Your task to perform on an android device: change the clock display to show seconds Image 0: 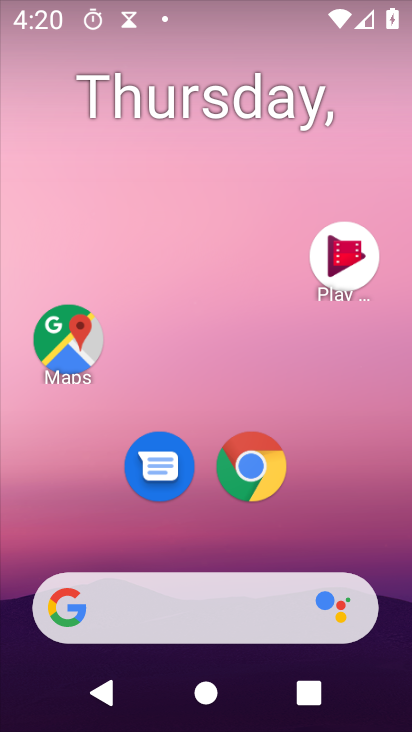
Step 0: drag from (262, 604) to (300, 120)
Your task to perform on an android device: change the clock display to show seconds Image 1: 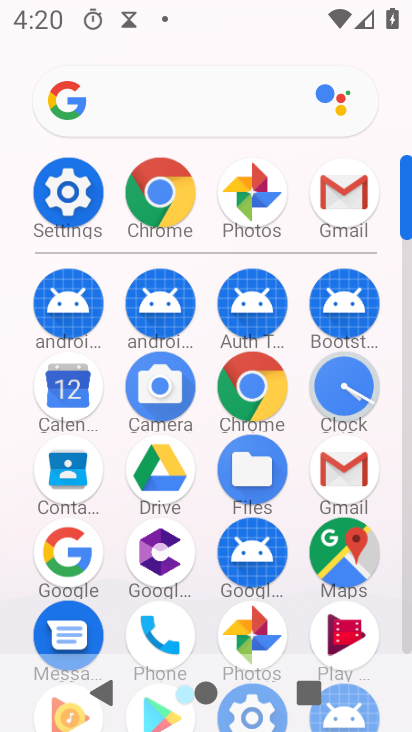
Step 1: click (62, 206)
Your task to perform on an android device: change the clock display to show seconds Image 2: 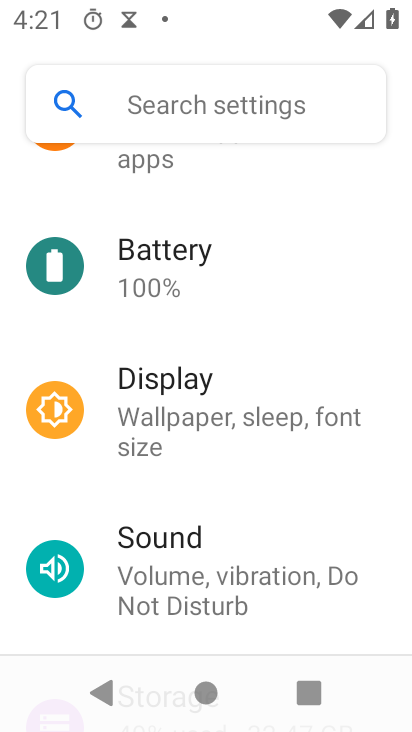
Step 2: drag from (232, 614) to (246, 104)
Your task to perform on an android device: change the clock display to show seconds Image 3: 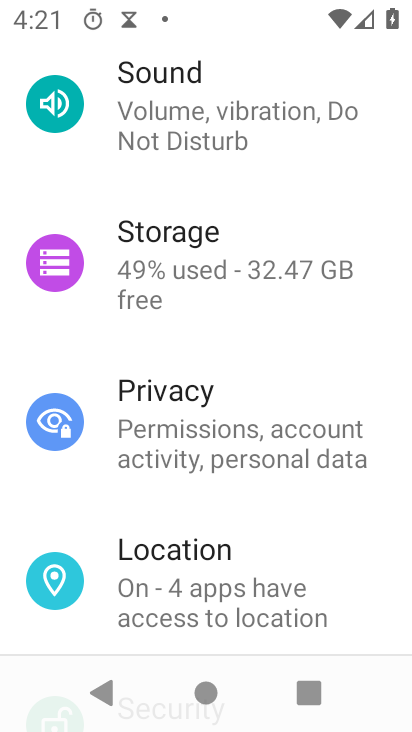
Step 3: press home button
Your task to perform on an android device: change the clock display to show seconds Image 4: 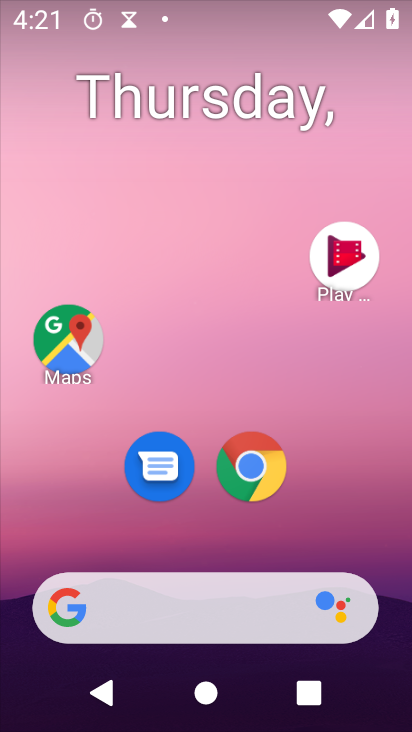
Step 4: drag from (277, 610) to (268, 2)
Your task to perform on an android device: change the clock display to show seconds Image 5: 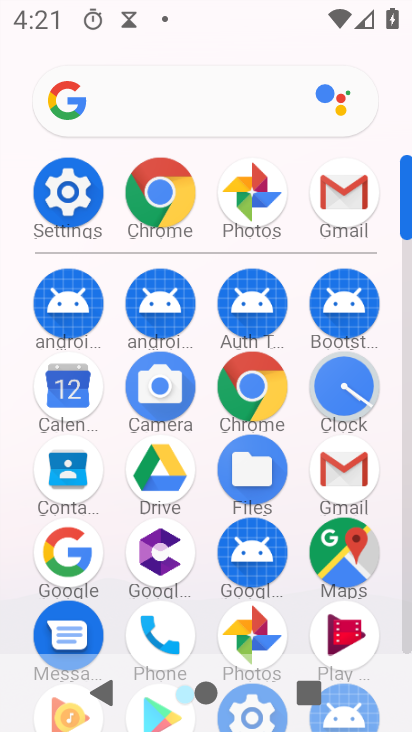
Step 5: click (338, 395)
Your task to perform on an android device: change the clock display to show seconds Image 6: 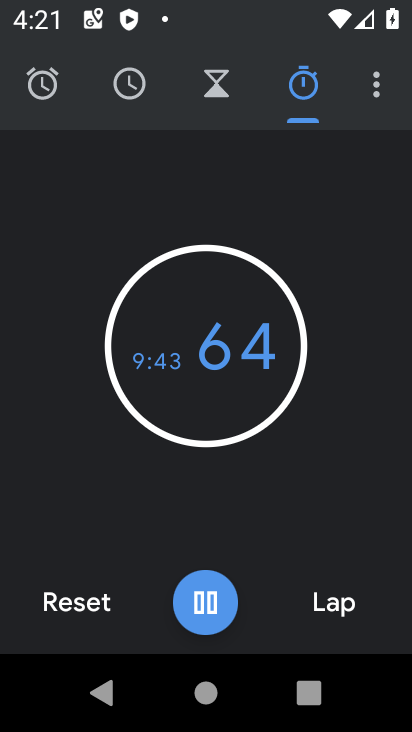
Step 6: click (379, 75)
Your task to perform on an android device: change the clock display to show seconds Image 7: 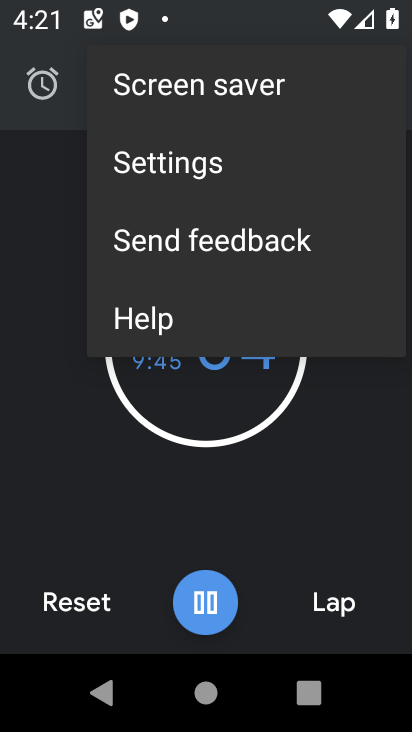
Step 7: click (226, 175)
Your task to perform on an android device: change the clock display to show seconds Image 8: 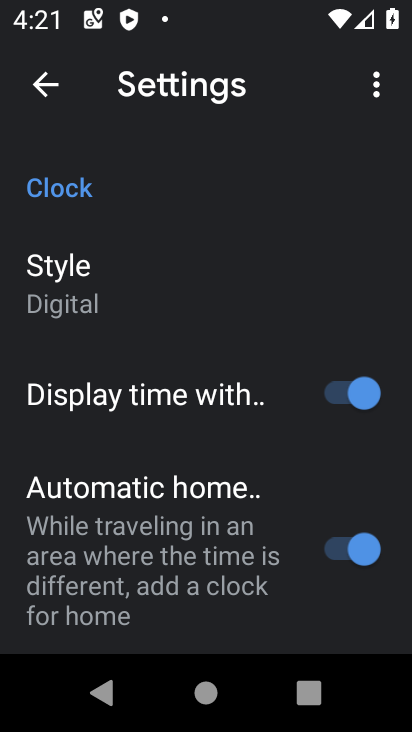
Step 8: task complete